Your task to perform on an android device: turn off sleep mode Image 0: 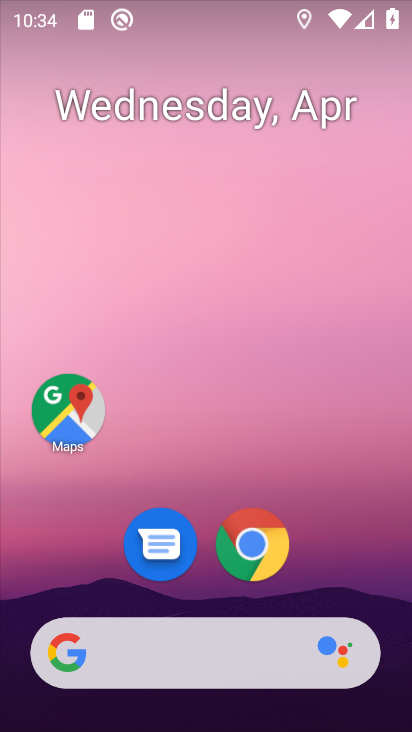
Step 0: drag from (362, 574) to (261, 124)
Your task to perform on an android device: turn off sleep mode Image 1: 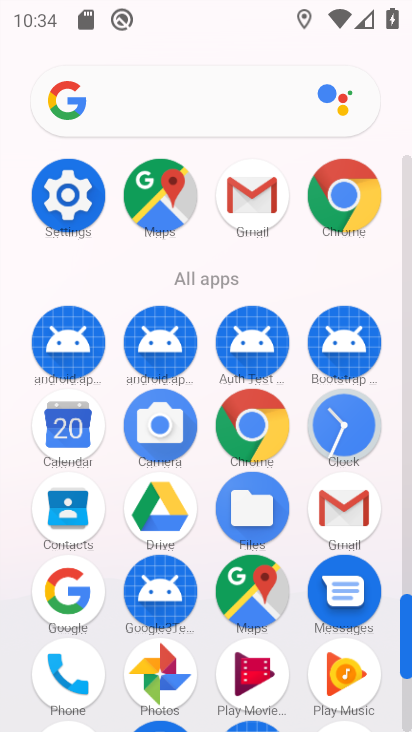
Step 1: click (83, 174)
Your task to perform on an android device: turn off sleep mode Image 2: 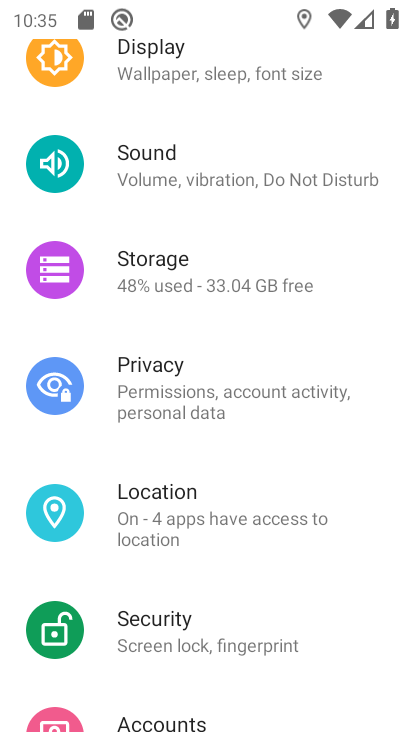
Step 2: click (198, 80)
Your task to perform on an android device: turn off sleep mode Image 3: 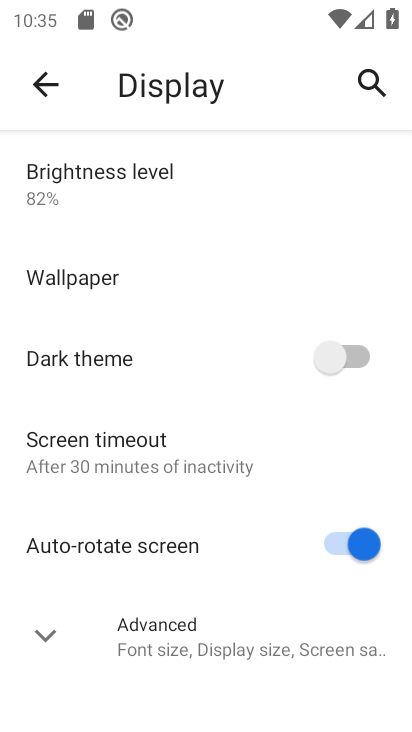
Step 3: task complete